Your task to perform on an android device: Is it going to rain tomorrow? Image 0: 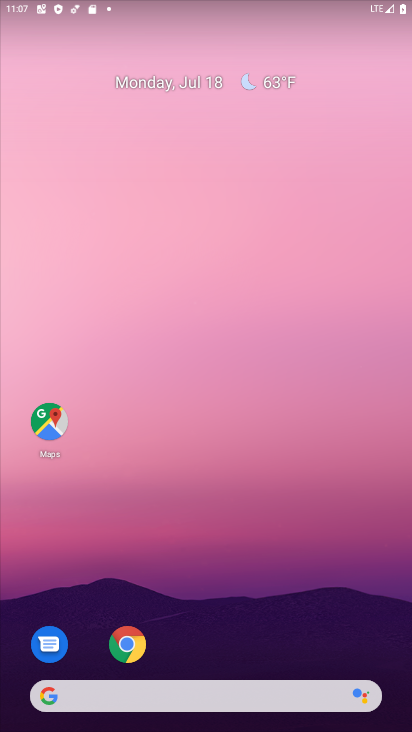
Step 0: click (170, 688)
Your task to perform on an android device: Is it going to rain tomorrow? Image 1: 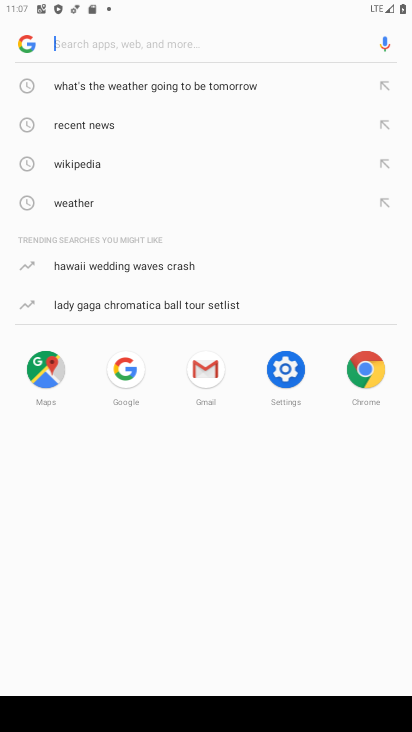
Step 1: type "is it going to rain tomorrow"
Your task to perform on an android device: Is it going to rain tomorrow? Image 2: 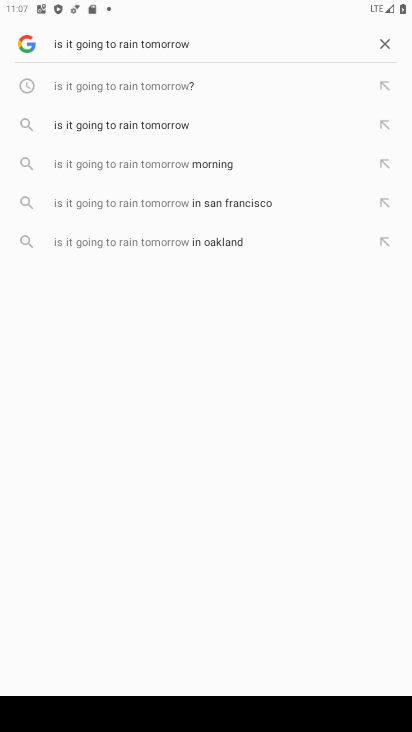
Step 2: click (243, 89)
Your task to perform on an android device: Is it going to rain tomorrow? Image 3: 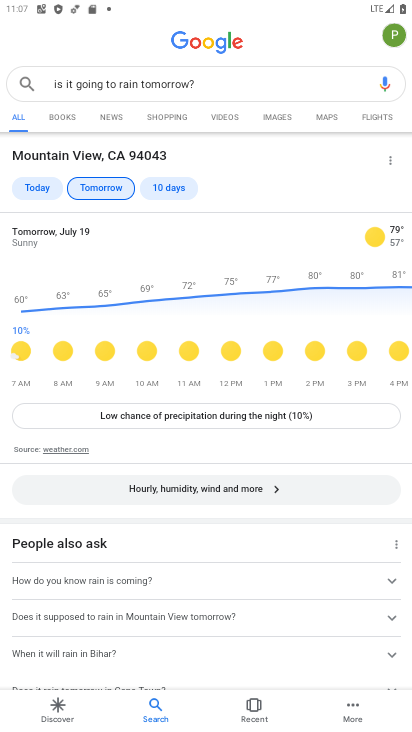
Step 3: task complete